Your task to perform on an android device: Check the news Image 0: 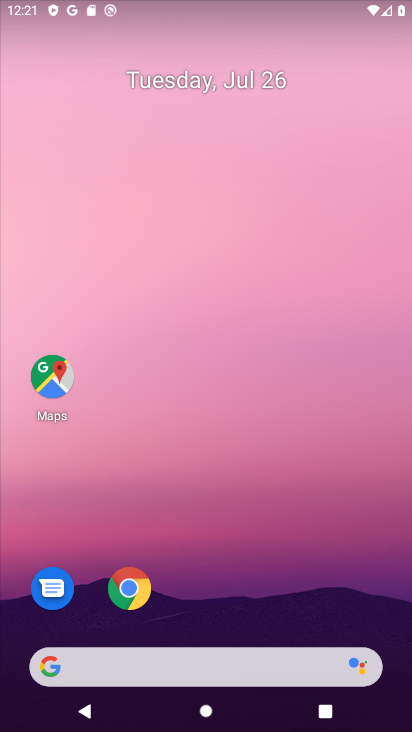
Step 0: drag from (223, 624) to (167, 156)
Your task to perform on an android device: Check the news Image 1: 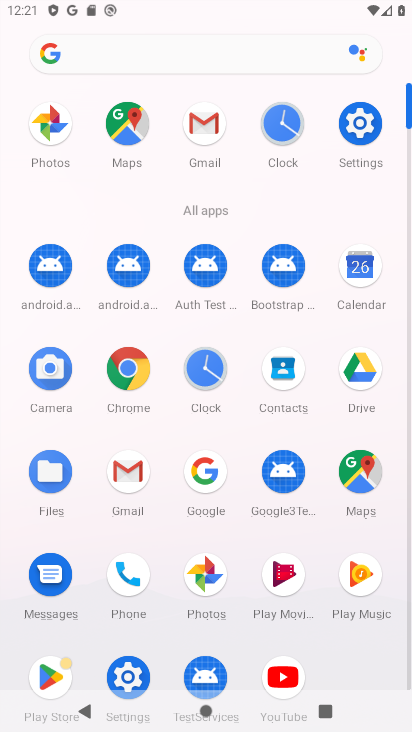
Step 1: click (113, 385)
Your task to perform on an android device: Check the news Image 2: 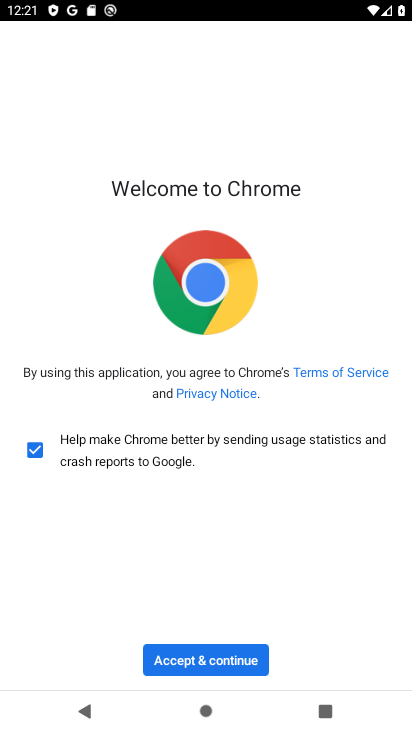
Step 2: click (245, 665)
Your task to perform on an android device: Check the news Image 3: 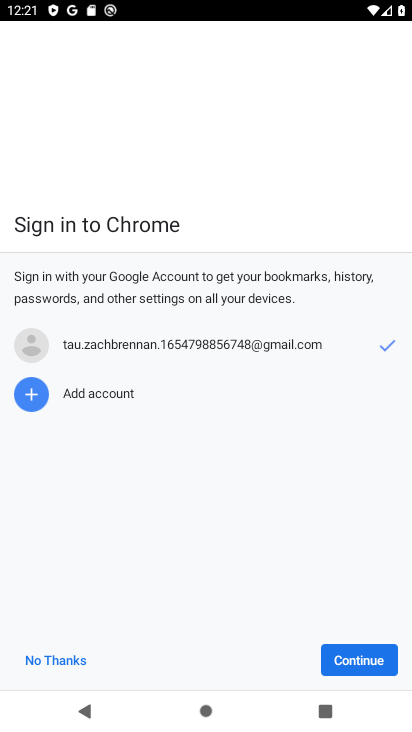
Step 3: click (382, 666)
Your task to perform on an android device: Check the news Image 4: 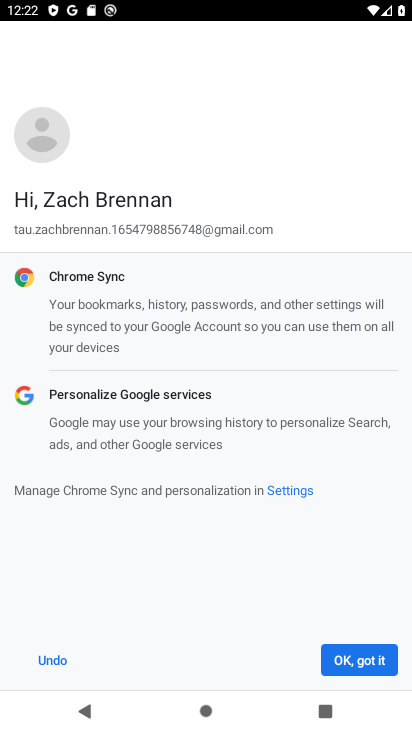
Step 4: click (382, 666)
Your task to perform on an android device: Check the news Image 5: 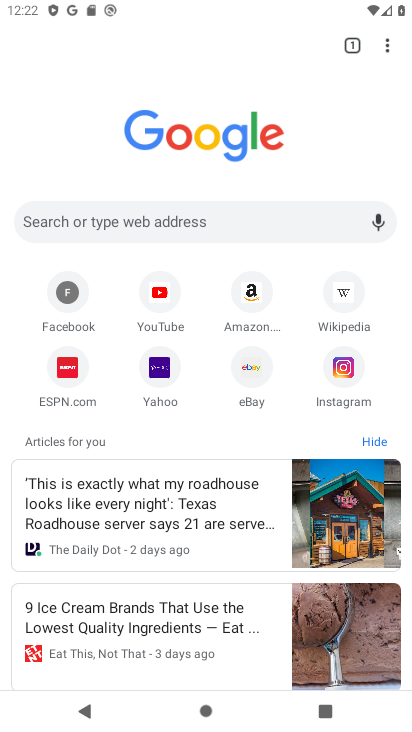
Step 5: click (221, 221)
Your task to perform on an android device: Check the news Image 6: 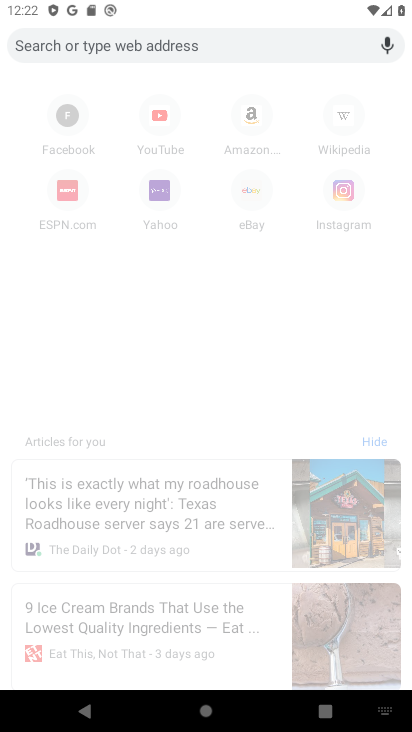
Step 6: type "Check the news"
Your task to perform on an android device: Check the news Image 7: 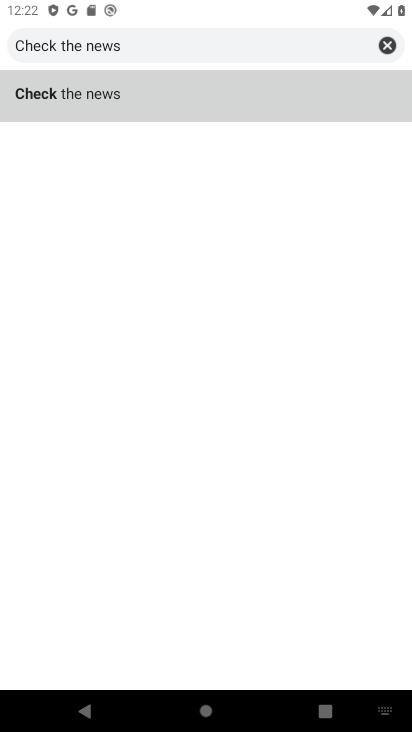
Step 7: click (259, 102)
Your task to perform on an android device: Check the news Image 8: 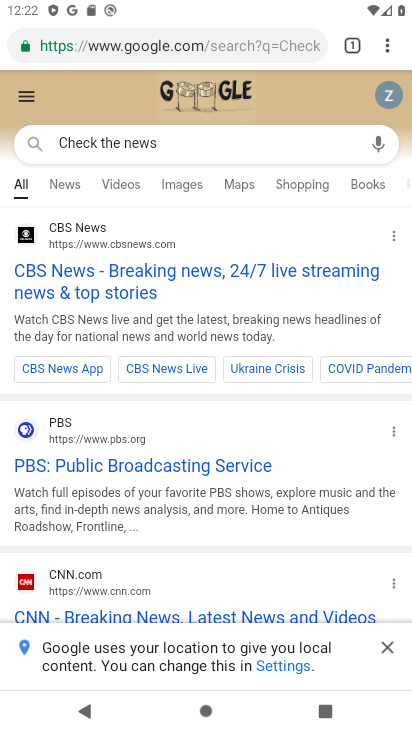
Step 8: click (251, 274)
Your task to perform on an android device: Check the news Image 9: 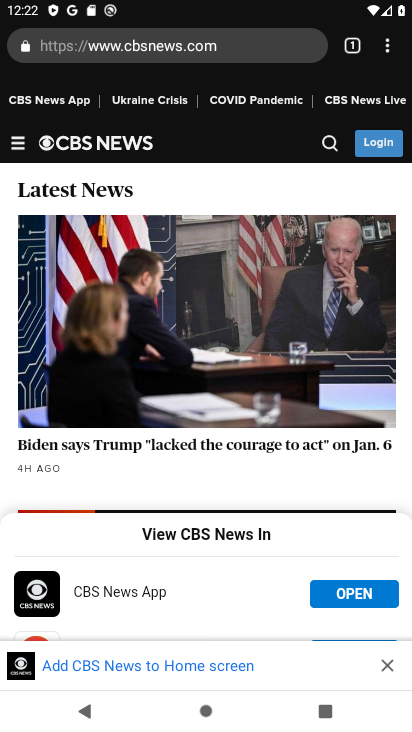
Step 9: task complete